Your task to perform on an android device: Go to Reddit.com Image 0: 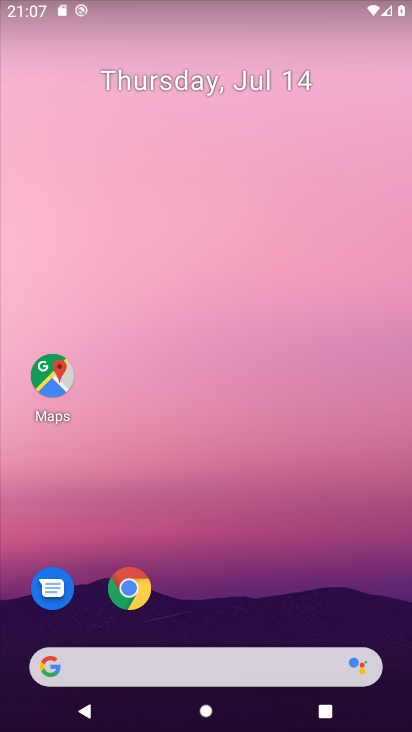
Step 0: drag from (344, 594) to (338, 52)
Your task to perform on an android device: Go to Reddit.com Image 1: 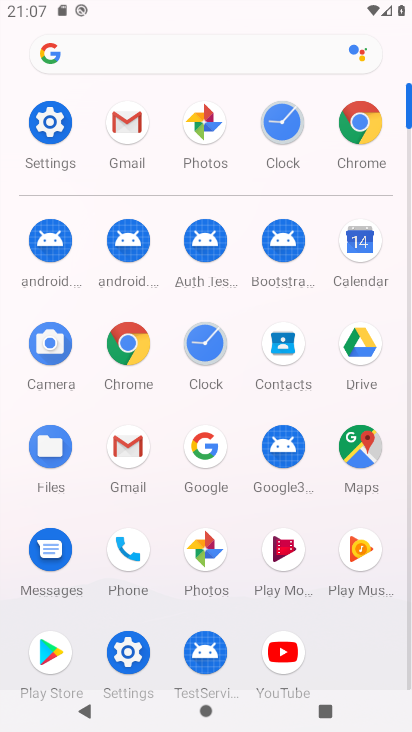
Step 1: click (357, 123)
Your task to perform on an android device: Go to Reddit.com Image 2: 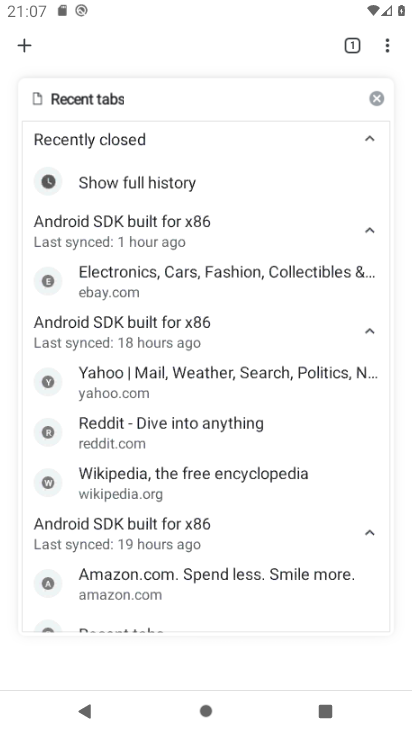
Step 2: press back button
Your task to perform on an android device: Go to Reddit.com Image 3: 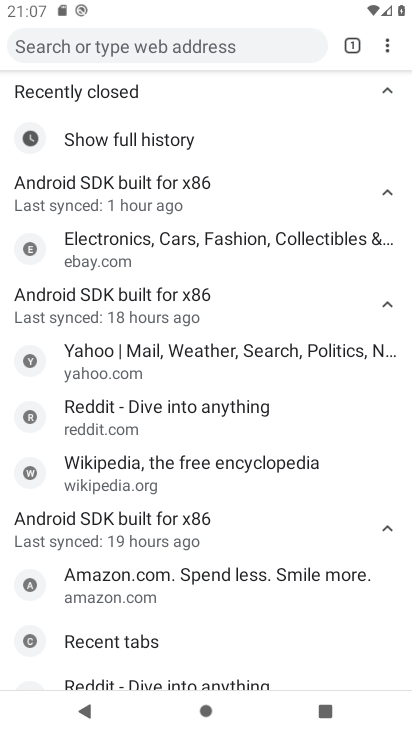
Step 3: click (210, 42)
Your task to perform on an android device: Go to Reddit.com Image 4: 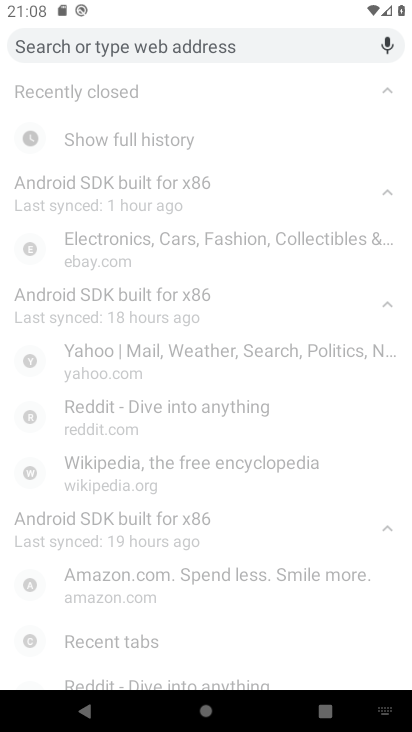
Step 4: type "reddit.com"
Your task to perform on an android device: Go to Reddit.com Image 5: 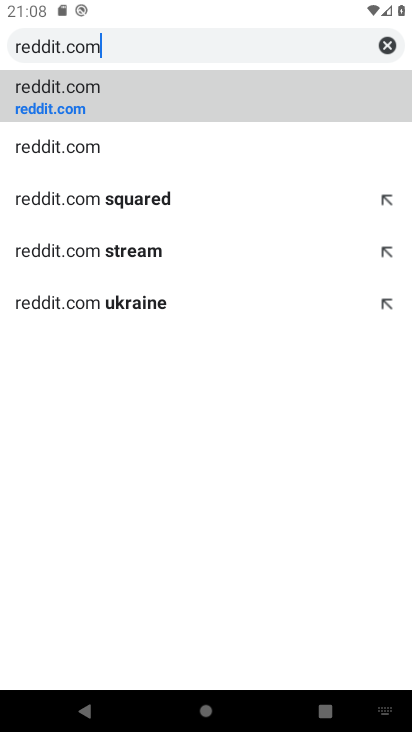
Step 5: click (174, 105)
Your task to perform on an android device: Go to Reddit.com Image 6: 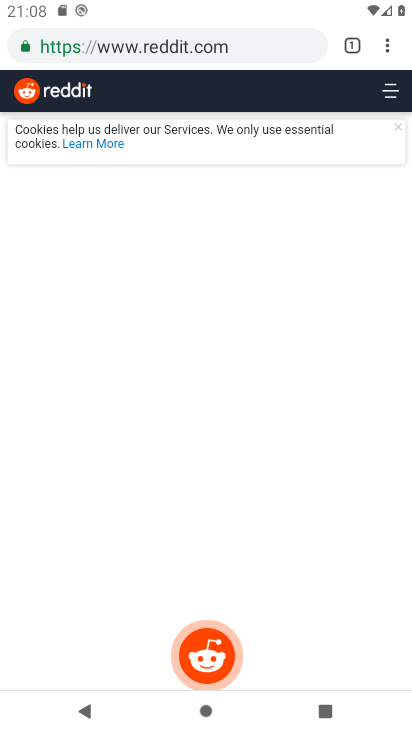
Step 6: task complete